Your task to perform on an android device: Go to settings Image 0: 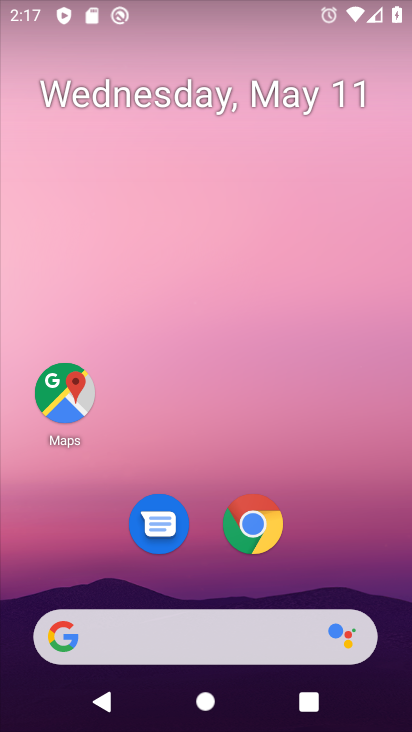
Step 0: drag from (367, 527) to (329, 38)
Your task to perform on an android device: Go to settings Image 1: 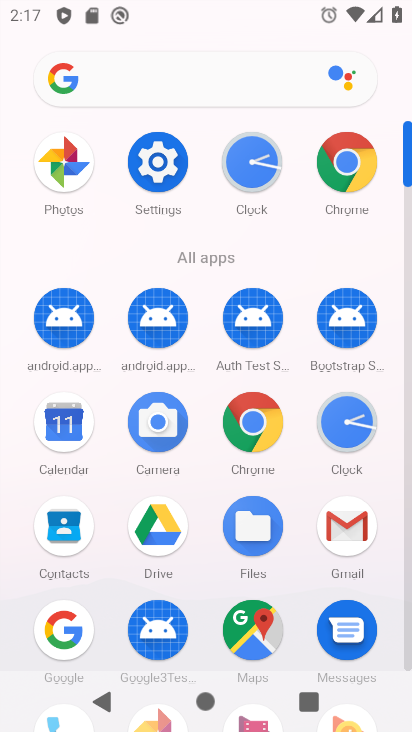
Step 1: click (160, 153)
Your task to perform on an android device: Go to settings Image 2: 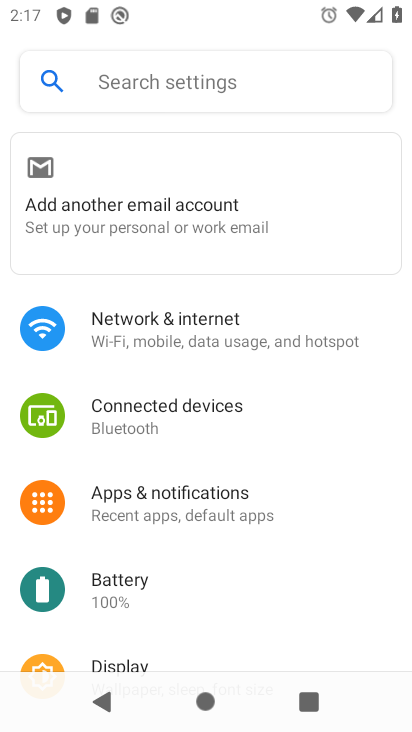
Step 2: task complete